Your task to perform on an android device: Open the map Image 0: 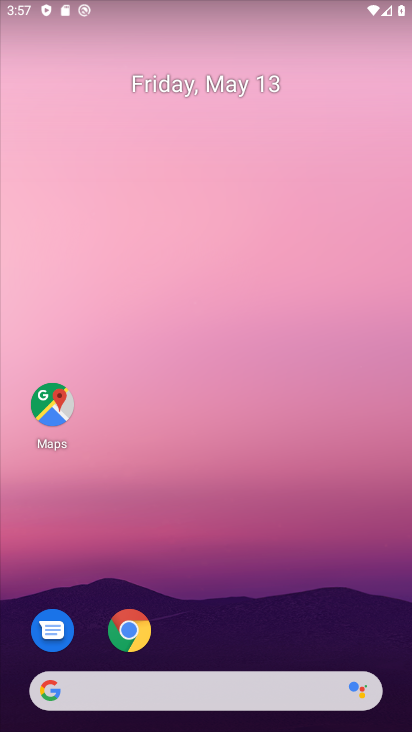
Step 0: drag from (205, 724) to (210, 231)
Your task to perform on an android device: Open the map Image 1: 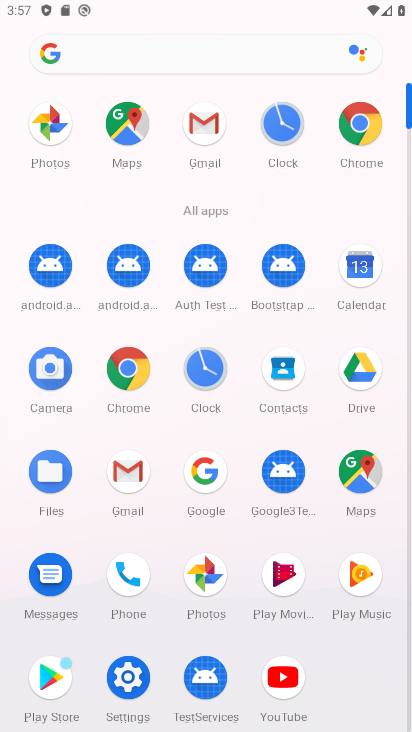
Step 1: click (353, 472)
Your task to perform on an android device: Open the map Image 2: 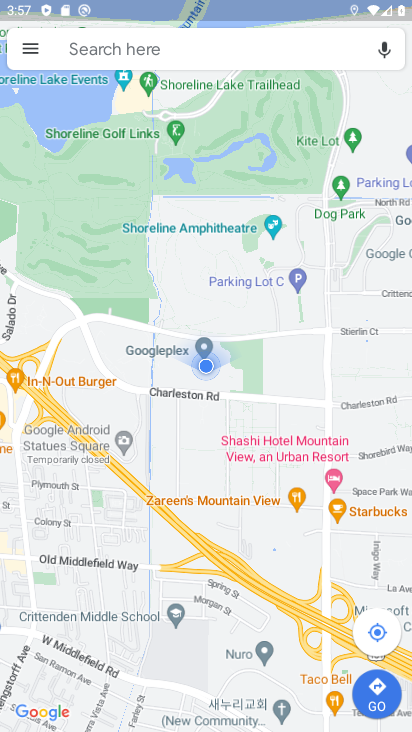
Step 2: task complete